Your task to perform on an android device: turn notification dots off Image 0: 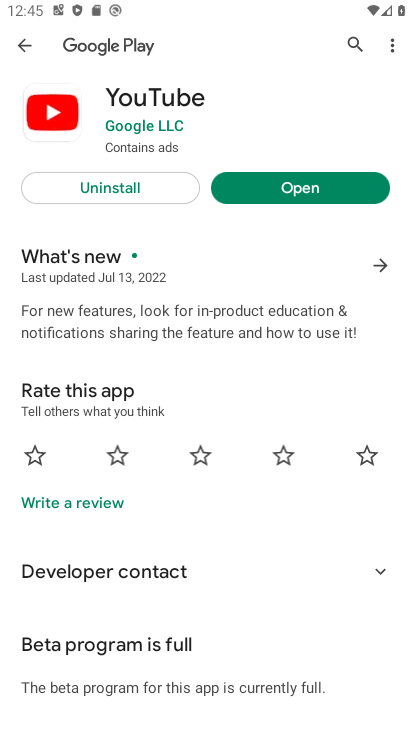
Step 0: press home button
Your task to perform on an android device: turn notification dots off Image 1: 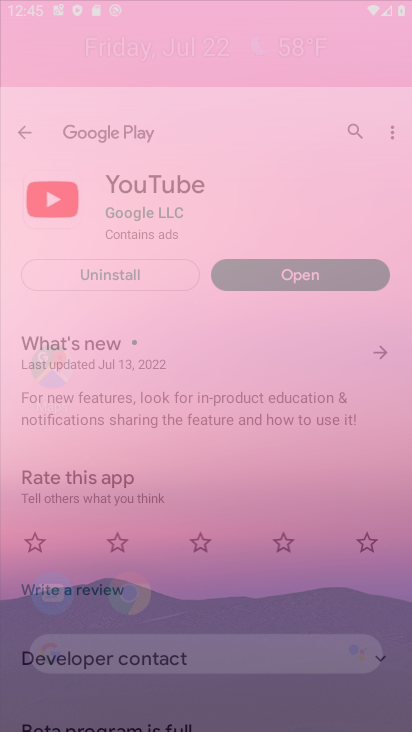
Step 1: drag from (327, 594) to (321, 221)
Your task to perform on an android device: turn notification dots off Image 2: 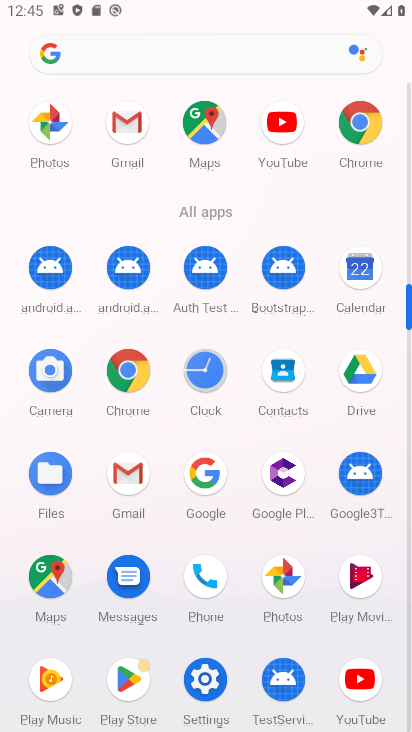
Step 2: click (202, 658)
Your task to perform on an android device: turn notification dots off Image 3: 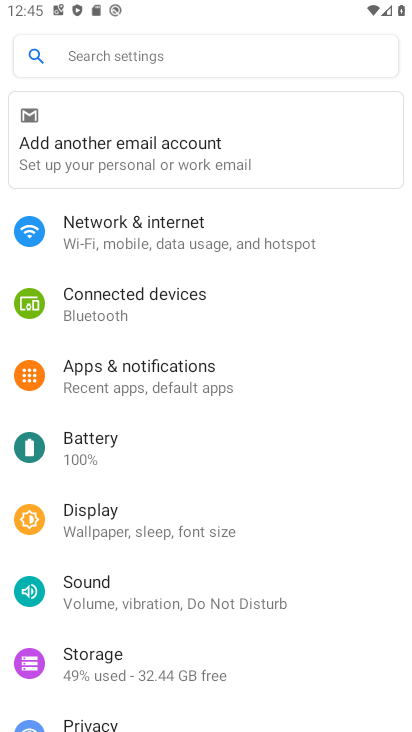
Step 3: drag from (148, 592) to (121, 108)
Your task to perform on an android device: turn notification dots off Image 4: 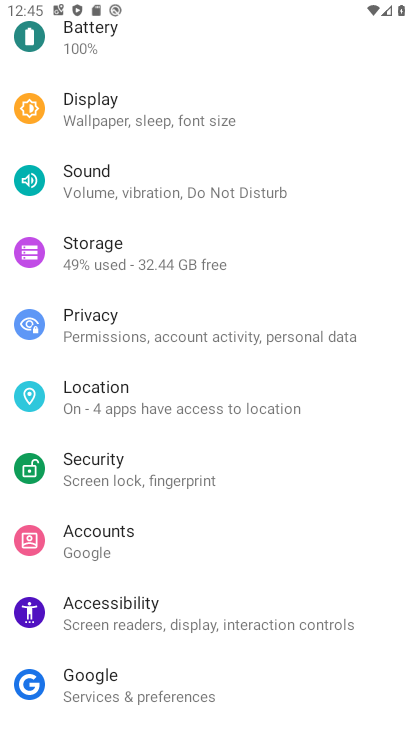
Step 4: click (38, 245)
Your task to perform on an android device: turn notification dots off Image 5: 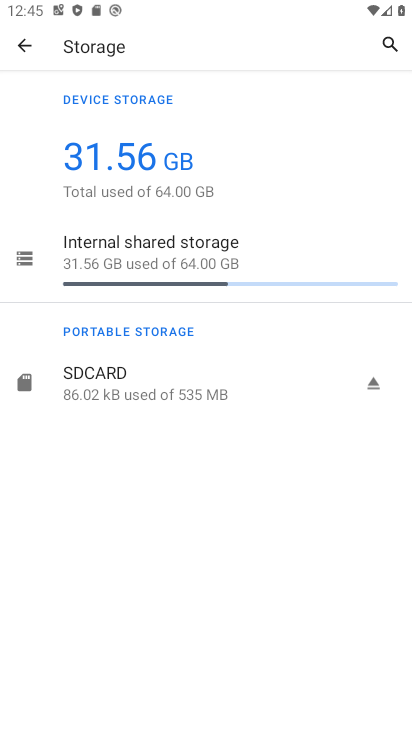
Step 5: press back button
Your task to perform on an android device: turn notification dots off Image 6: 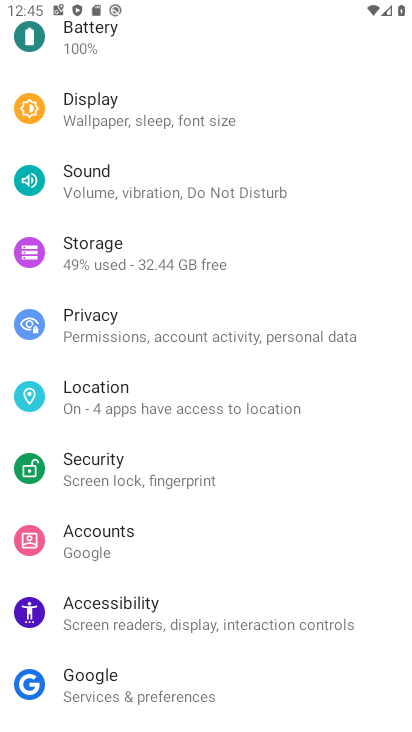
Step 6: drag from (189, 607) to (73, 198)
Your task to perform on an android device: turn notification dots off Image 7: 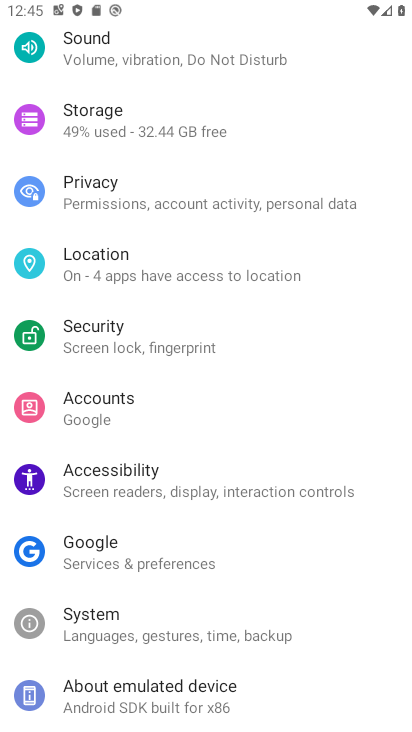
Step 7: drag from (75, 171) to (151, 645)
Your task to perform on an android device: turn notification dots off Image 8: 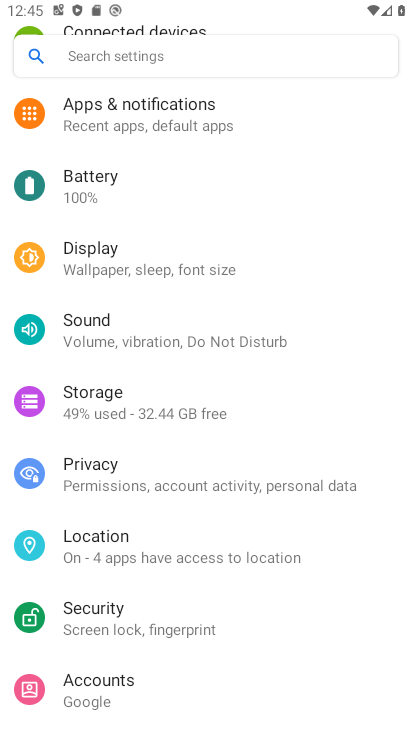
Step 8: drag from (243, 166) to (207, 483)
Your task to perform on an android device: turn notification dots off Image 9: 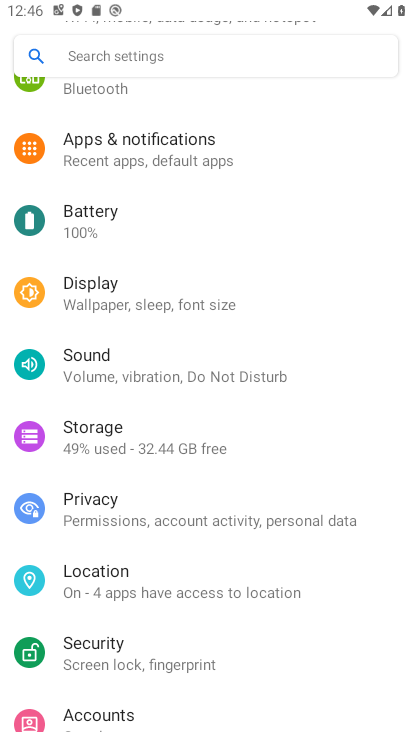
Step 9: click (169, 151)
Your task to perform on an android device: turn notification dots off Image 10: 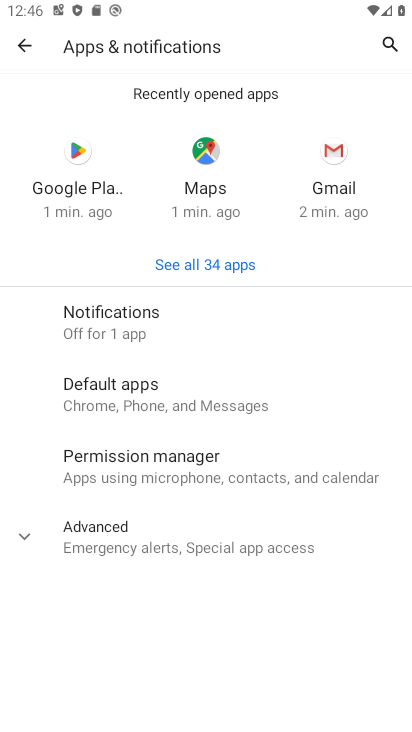
Step 10: click (122, 308)
Your task to perform on an android device: turn notification dots off Image 11: 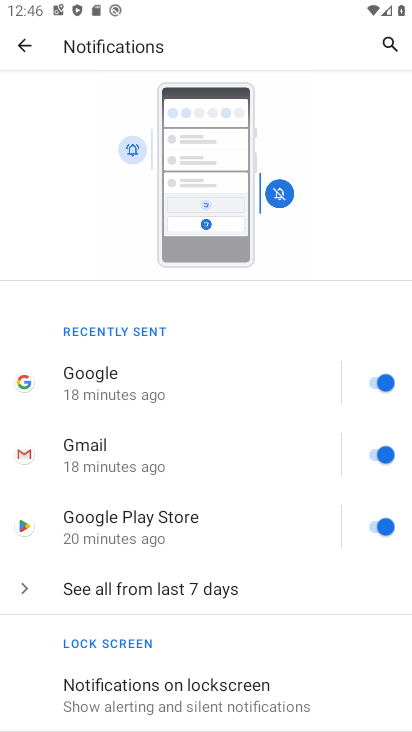
Step 11: drag from (240, 536) to (242, 267)
Your task to perform on an android device: turn notification dots off Image 12: 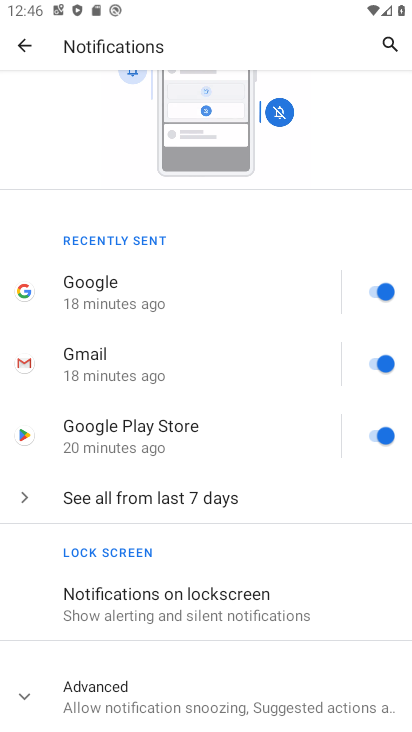
Step 12: click (164, 674)
Your task to perform on an android device: turn notification dots off Image 13: 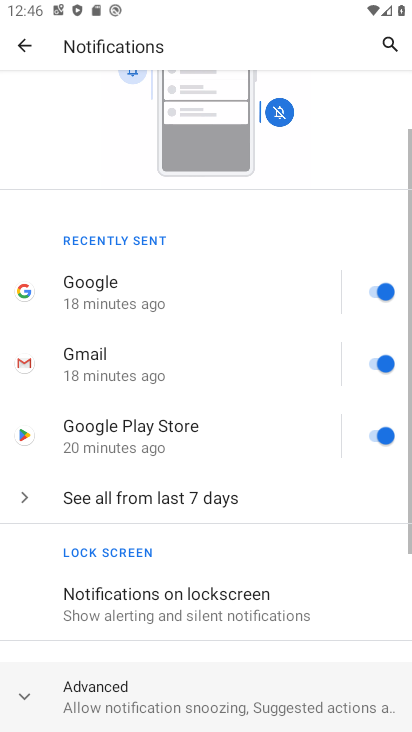
Step 13: drag from (254, 676) to (235, 542)
Your task to perform on an android device: turn notification dots off Image 14: 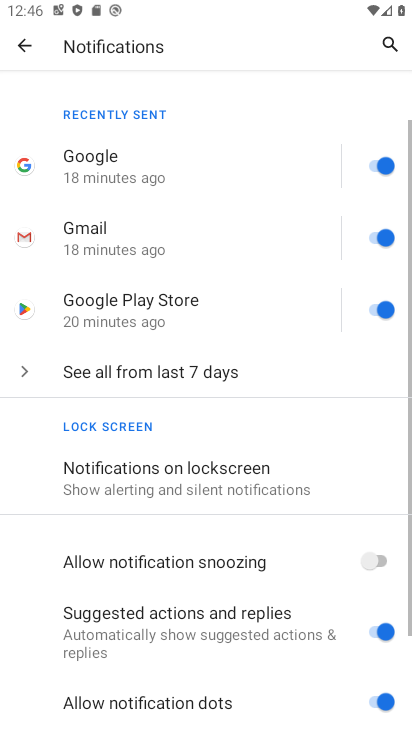
Step 14: drag from (183, 673) to (179, 381)
Your task to perform on an android device: turn notification dots off Image 15: 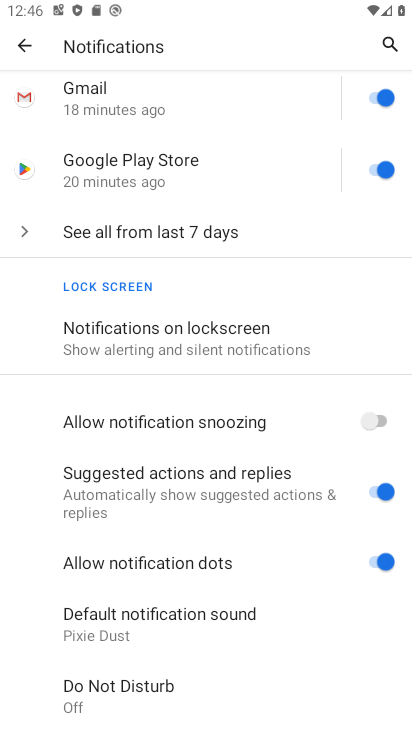
Step 15: click (103, 570)
Your task to perform on an android device: turn notification dots off Image 16: 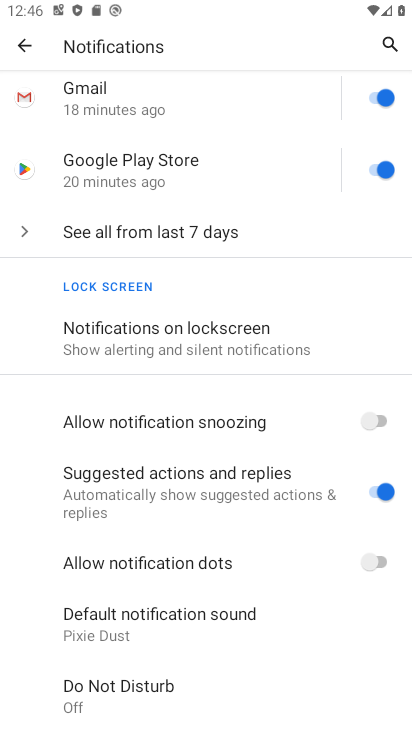
Step 16: task complete